Your task to perform on an android device: change alarm snooze length Image 0: 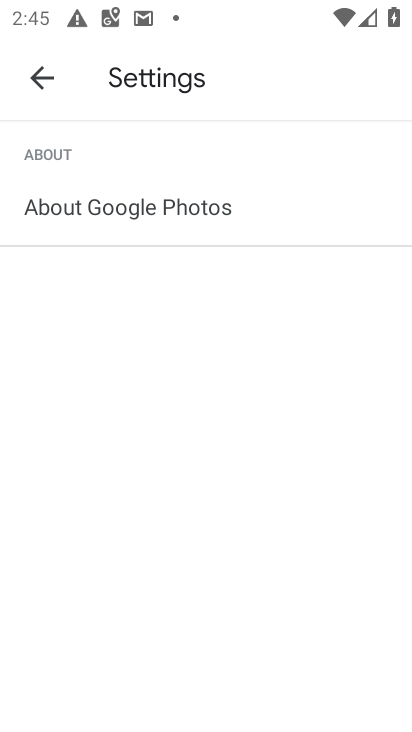
Step 0: press home button
Your task to perform on an android device: change alarm snooze length Image 1: 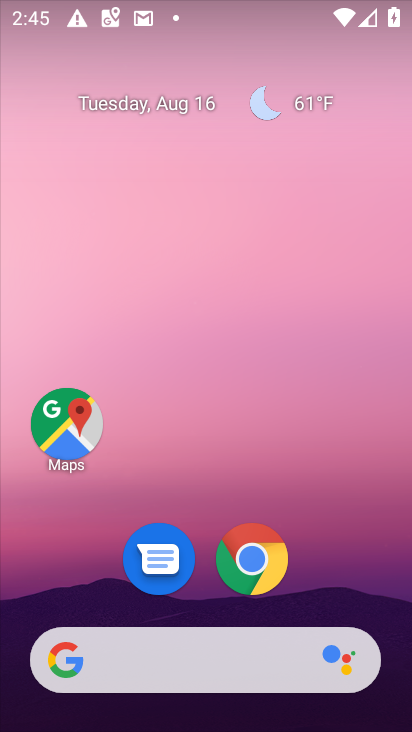
Step 1: drag from (381, 609) to (359, 191)
Your task to perform on an android device: change alarm snooze length Image 2: 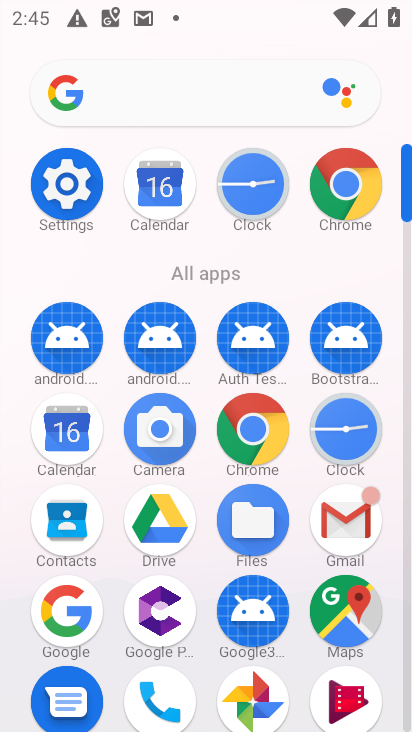
Step 2: click (343, 432)
Your task to perform on an android device: change alarm snooze length Image 3: 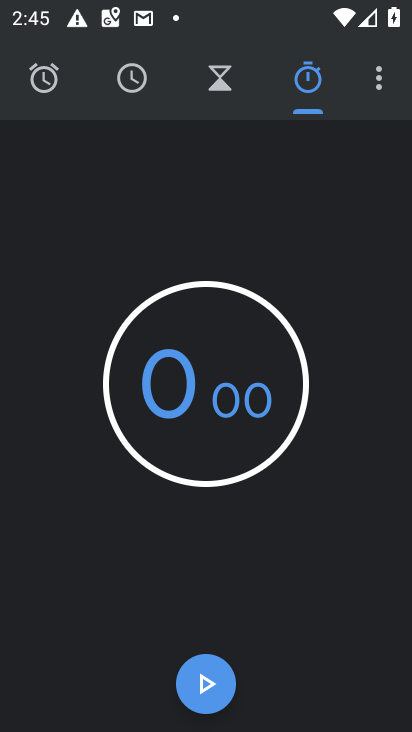
Step 3: click (375, 88)
Your task to perform on an android device: change alarm snooze length Image 4: 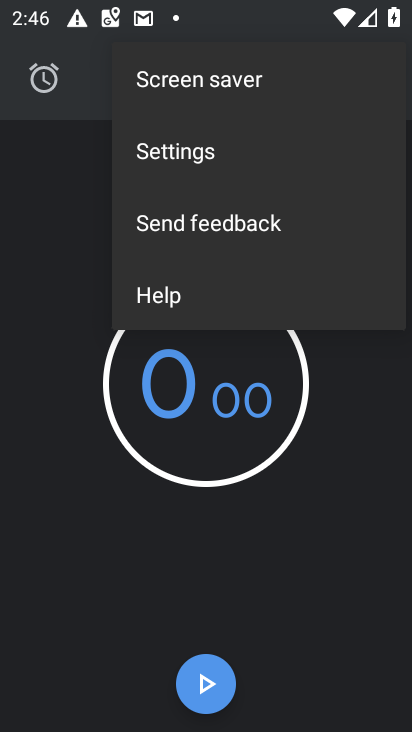
Step 4: click (165, 156)
Your task to perform on an android device: change alarm snooze length Image 5: 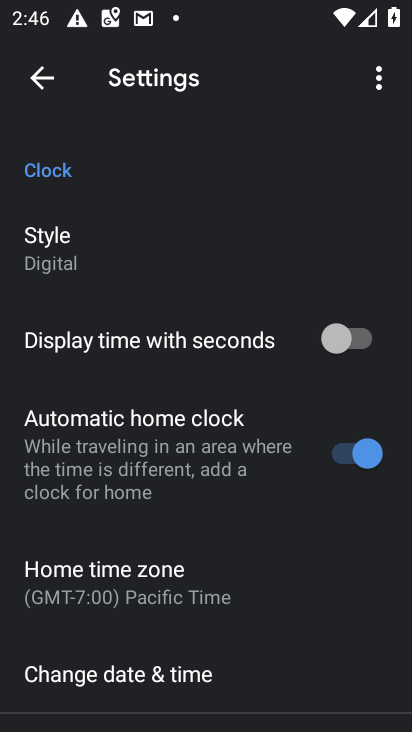
Step 5: drag from (260, 615) to (287, 225)
Your task to perform on an android device: change alarm snooze length Image 6: 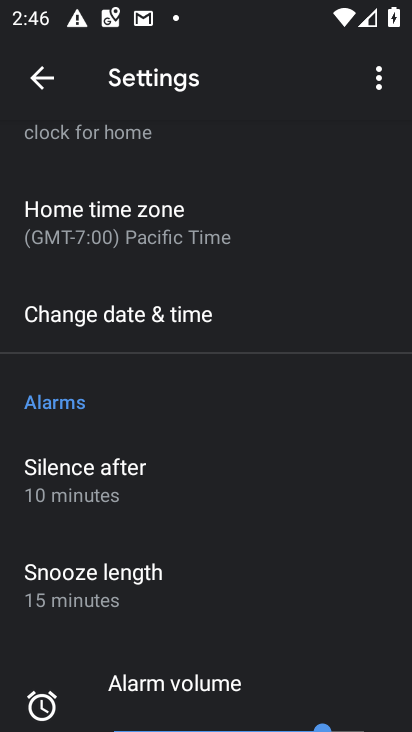
Step 6: click (82, 587)
Your task to perform on an android device: change alarm snooze length Image 7: 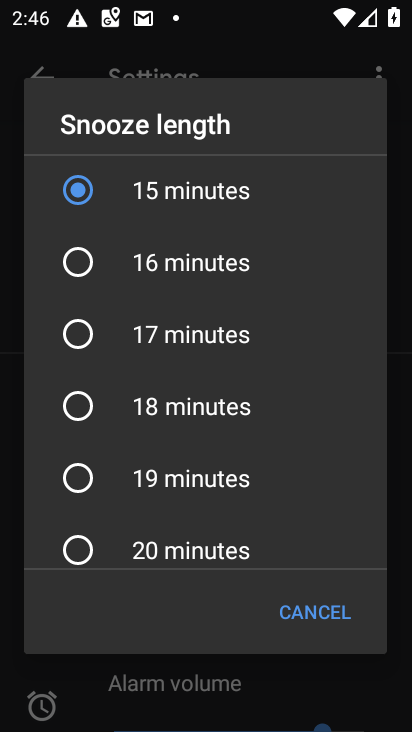
Step 7: click (78, 481)
Your task to perform on an android device: change alarm snooze length Image 8: 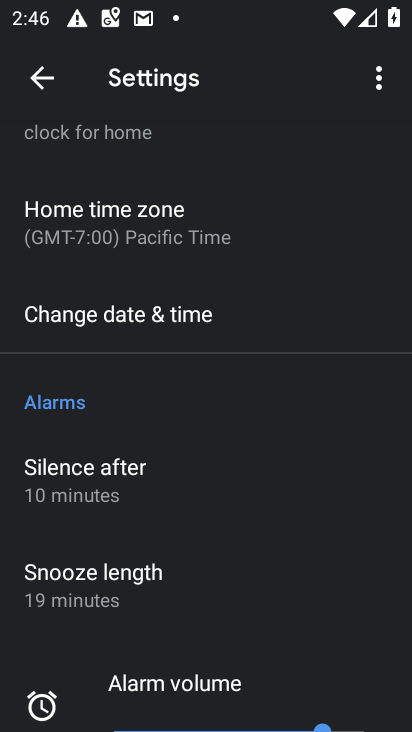
Step 8: task complete